Your task to perform on an android device: open app "Messenger Lite" Image 0: 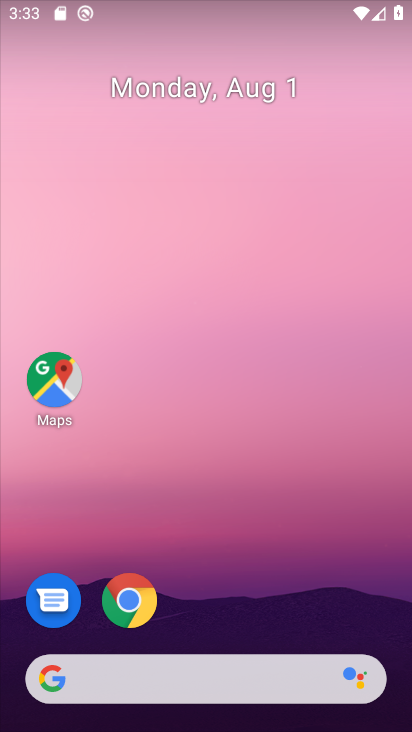
Step 0: drag from (275, 557) to (253, 18)
Your task to perform on an android device: open app "Messenger Lite" Image 1: 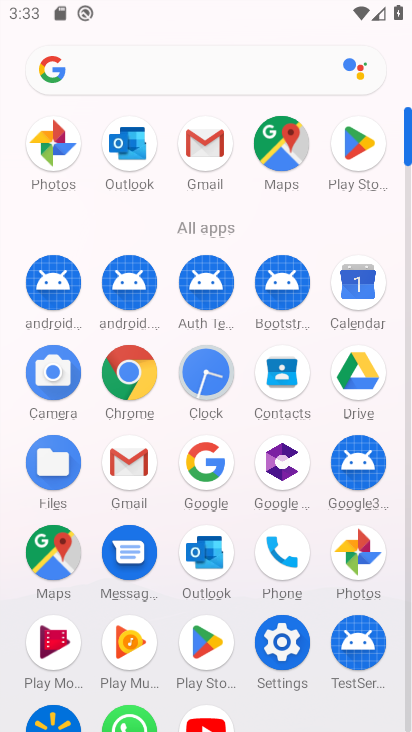
Step 1: click (360, 156)
Your task to perform on an android device: open app "Messenger Lite" Image 2: 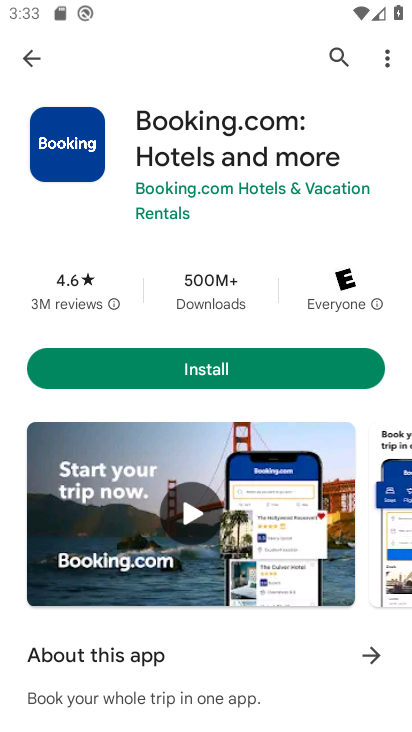
Step 2: click (338, 69)
Your task to perform on an android device: open app "Messenger Lite" Image 3: 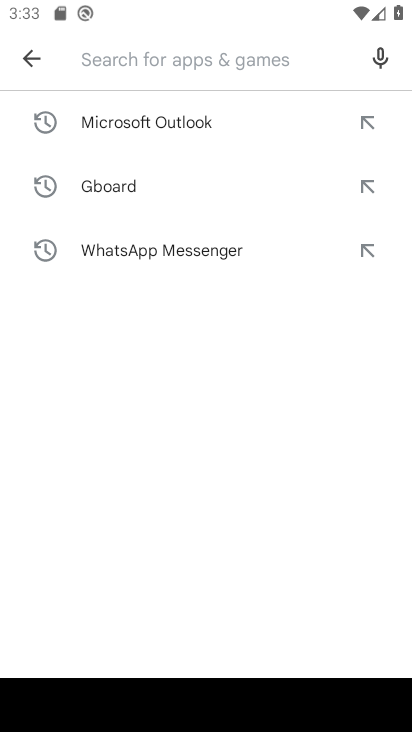
Step 3: type "Messenger Lite"
Your task to perform on an android device: open app "Messenger Lite" Image 4: 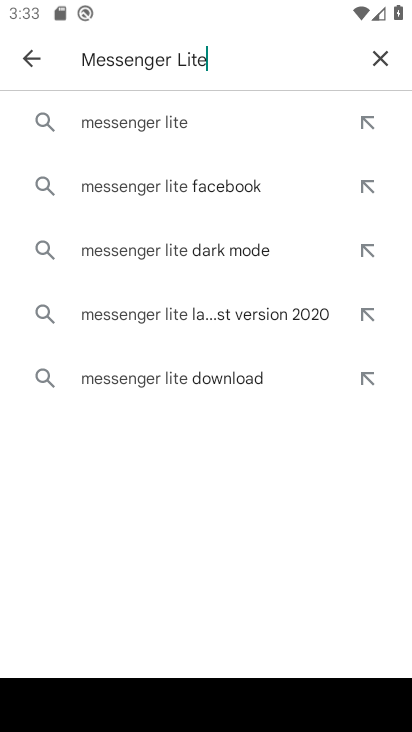
Step 4: press enter
Your task to perform on an android device: open app "Messenger Lite" Image 5: 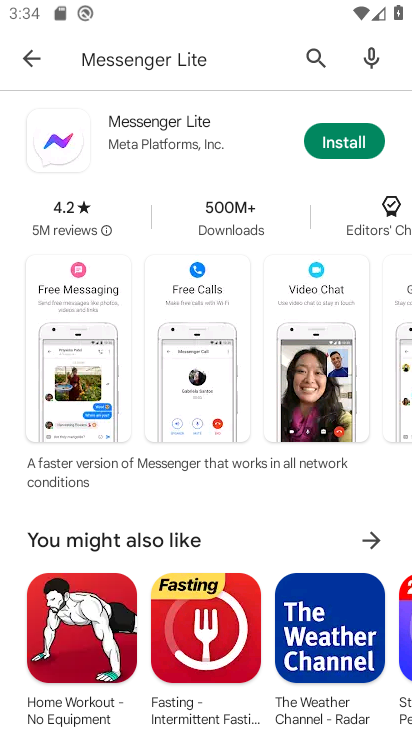
Step 5: task complete